Your task to perform on an android device: toggle javascript in the chrome app Image 0: 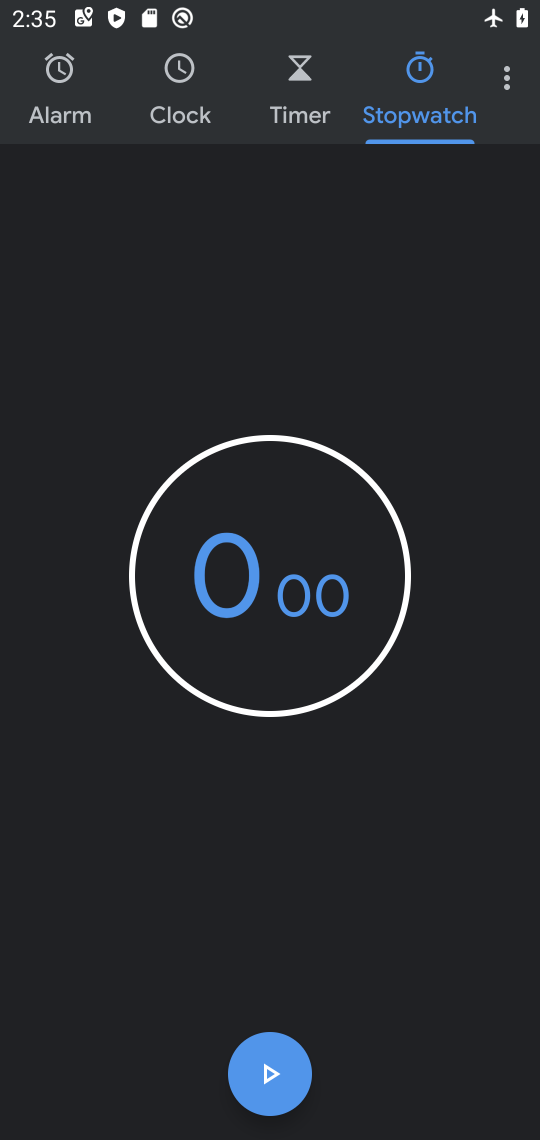
Step 0: press home button
Your task to perform on an android device: toggle javascript in the chrome app Image 1: 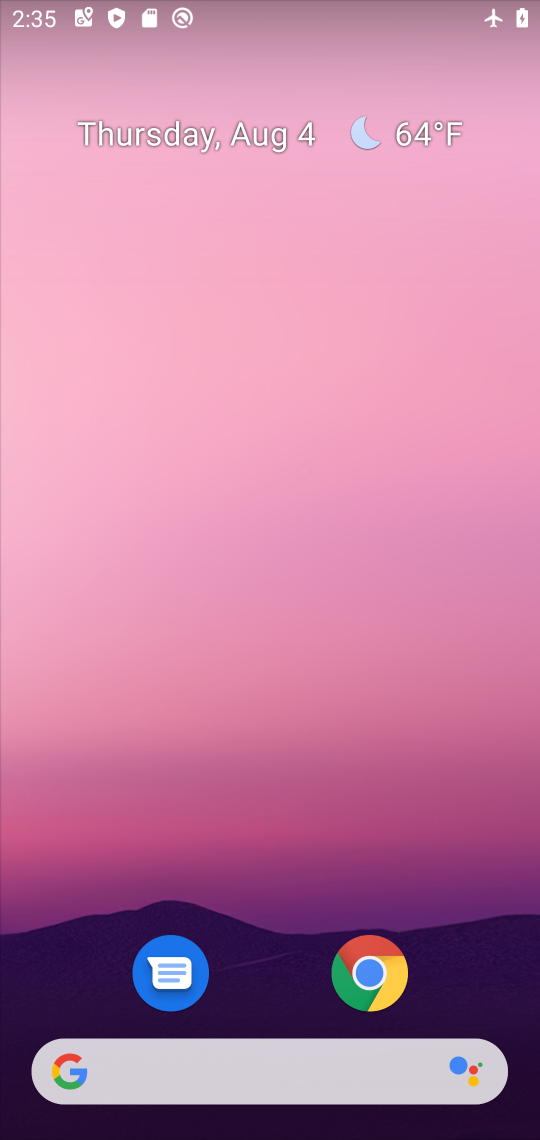
Step 1: click (382, 984)
Your task to perform on an android device: toggle javascript in the chrome app Image 2: 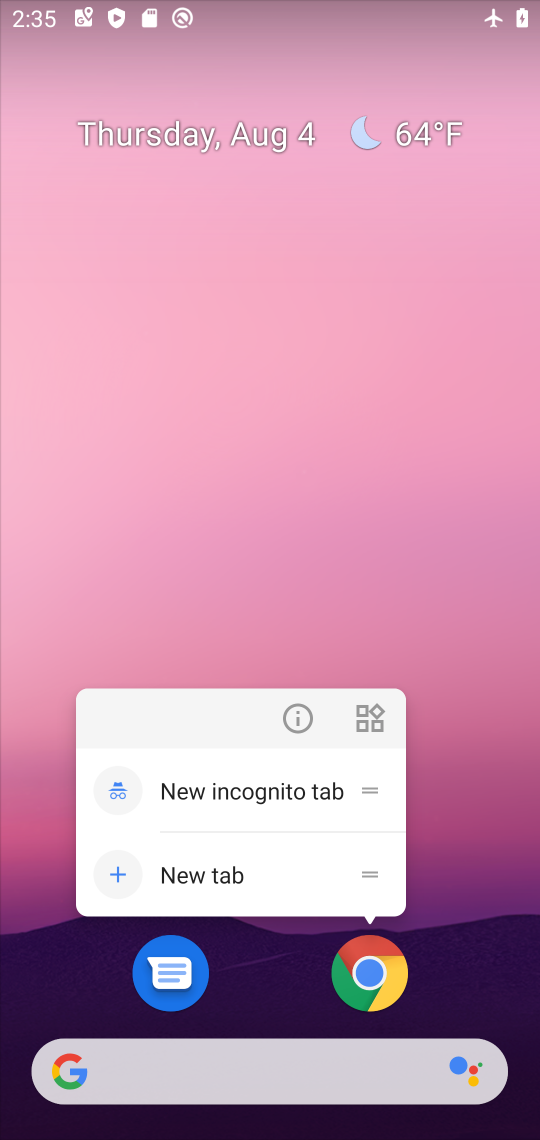
Step 2: click (360, 981)
Your task to perform on an android device: toggle javascript in the chrome app Image 3: 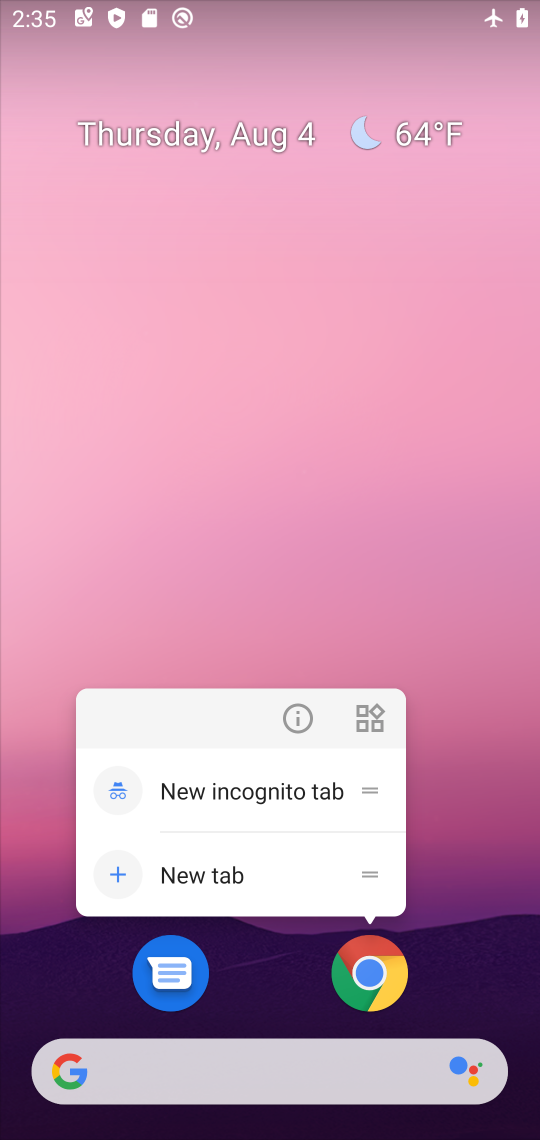
Step 3: click (360, 981)
Your task to perform on an android device: toggle javascript in the chrome app Image 4: 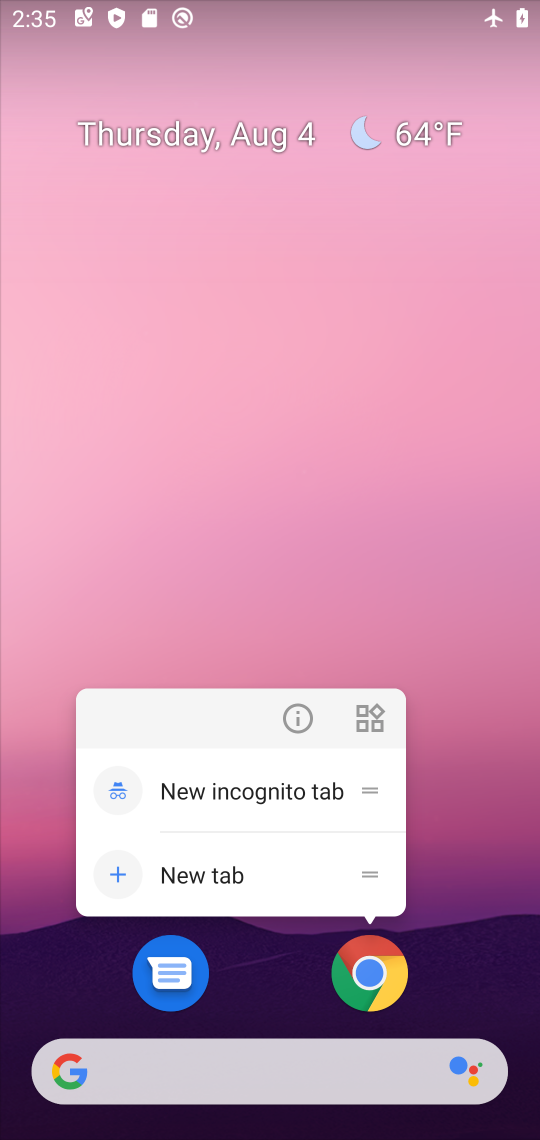
Step 4: click (371, 956)
Your task to perform on an android device: toggle javascript in the chrome app Image 5: 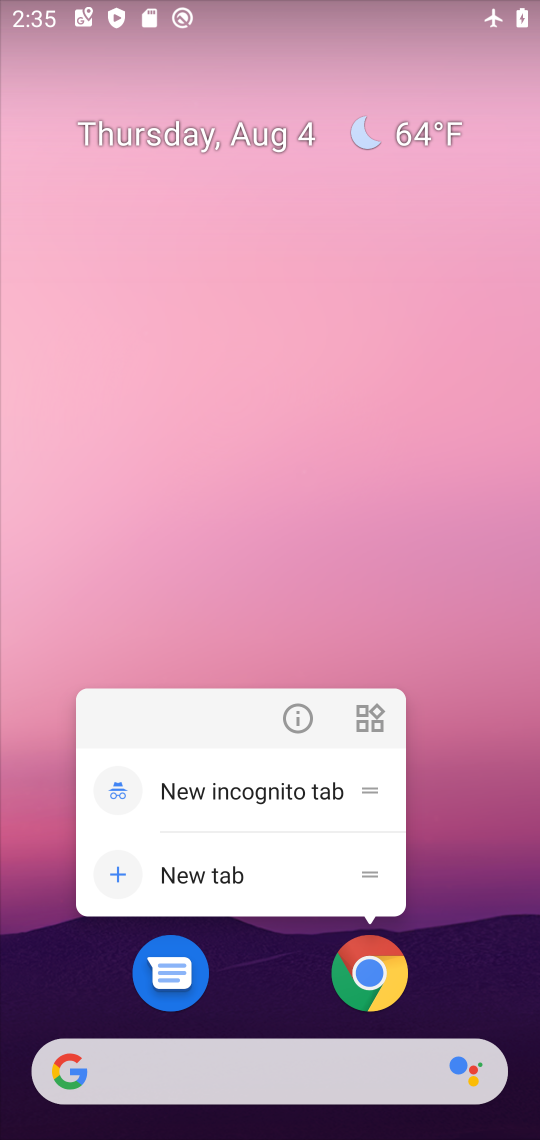
Step 5: drag from (280, 1015) to (113, 38)
Your task to perform on an android device: toggle javascript in the chrome app Image 6: 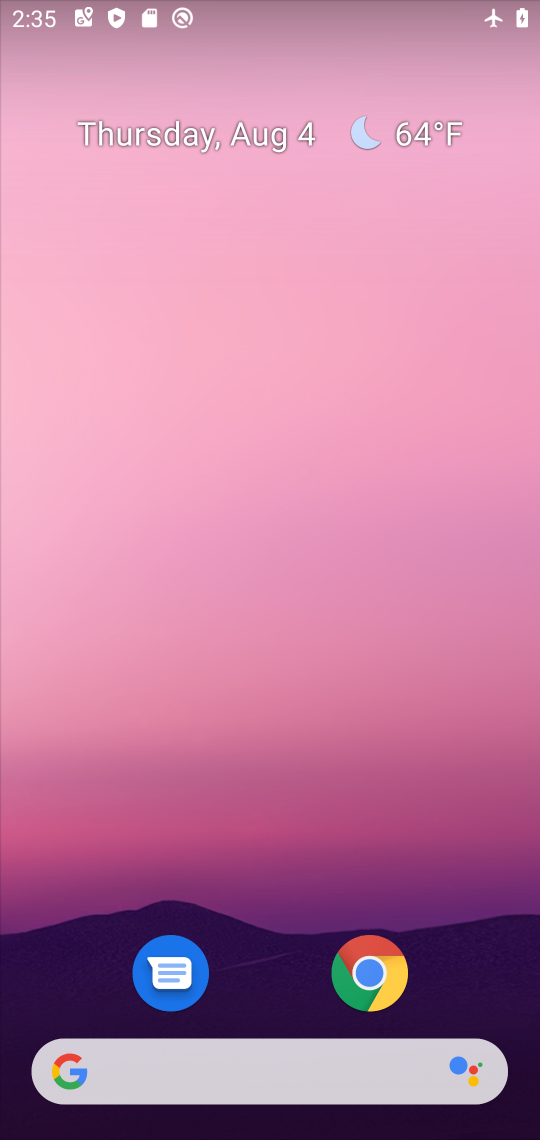
Step 6: drag from (239, 1009) to (431, 988)
Your task to perform on an android device: toggle javascript in the chrome app Image 7: 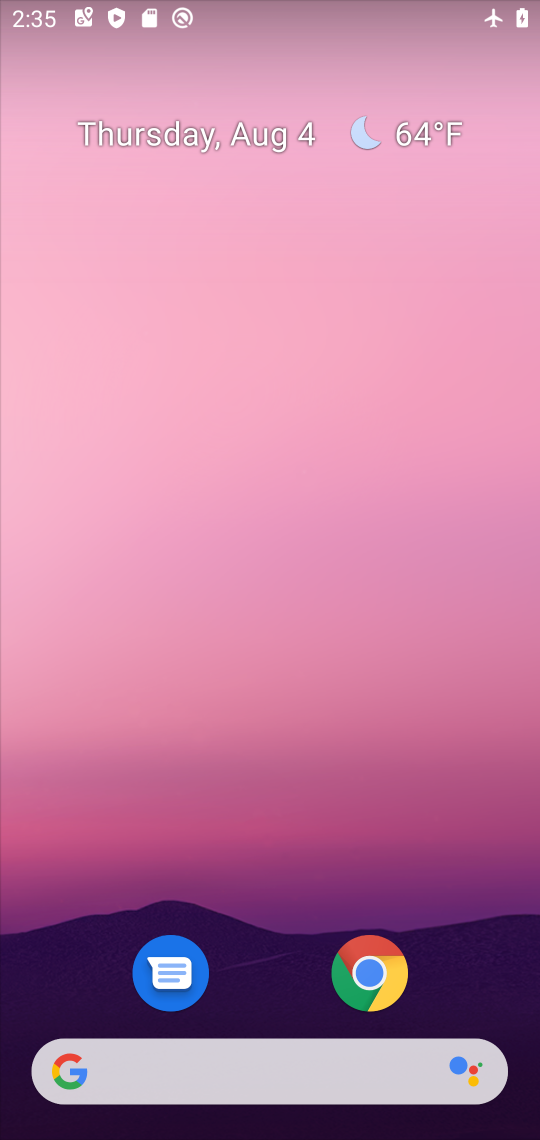
Step 7: click (378, 948)
Your task to perform on an android device: toggle javascript in the chrome app Image 8: 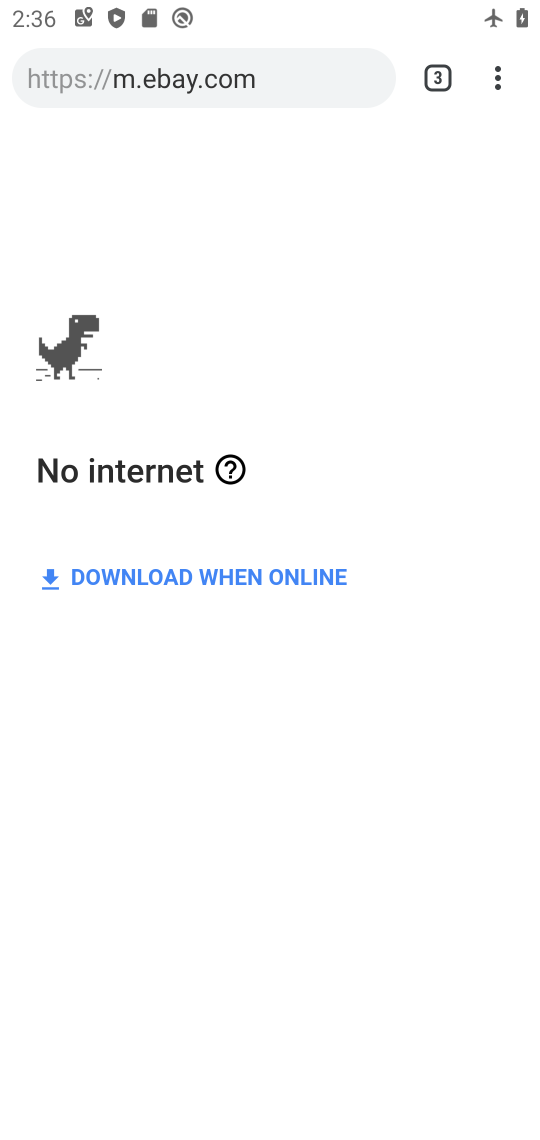
Step 8: drag from (494, 73) to (254, 863)
Your task to perform on an android device: toggle javascript in the chrome app Image 9: 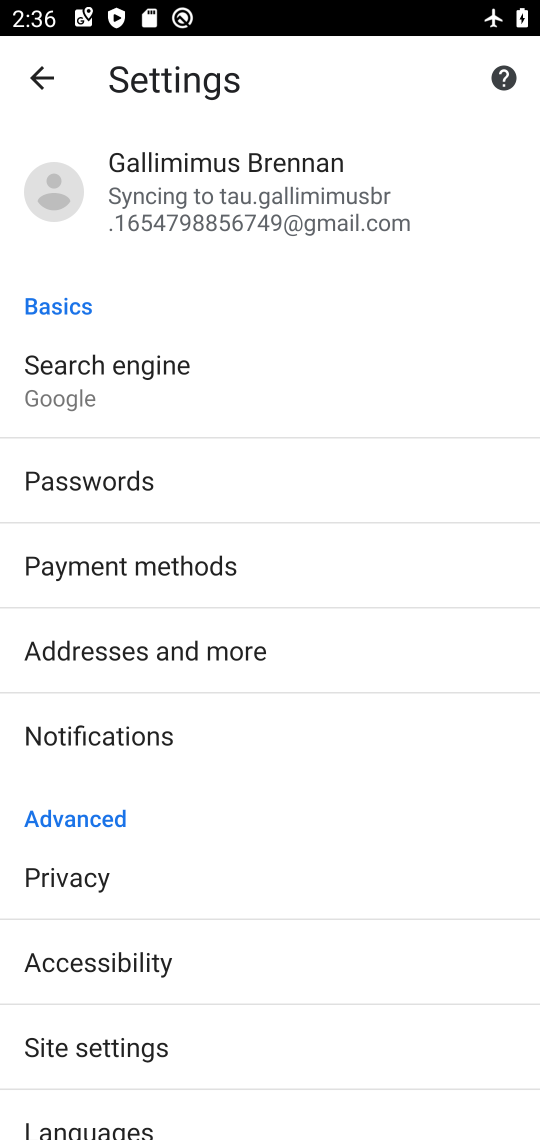
Step 9: drag from (171, 888) to (71, 51)
Your task to perform on an android device: toggle javascript in the chrome app Image 10: 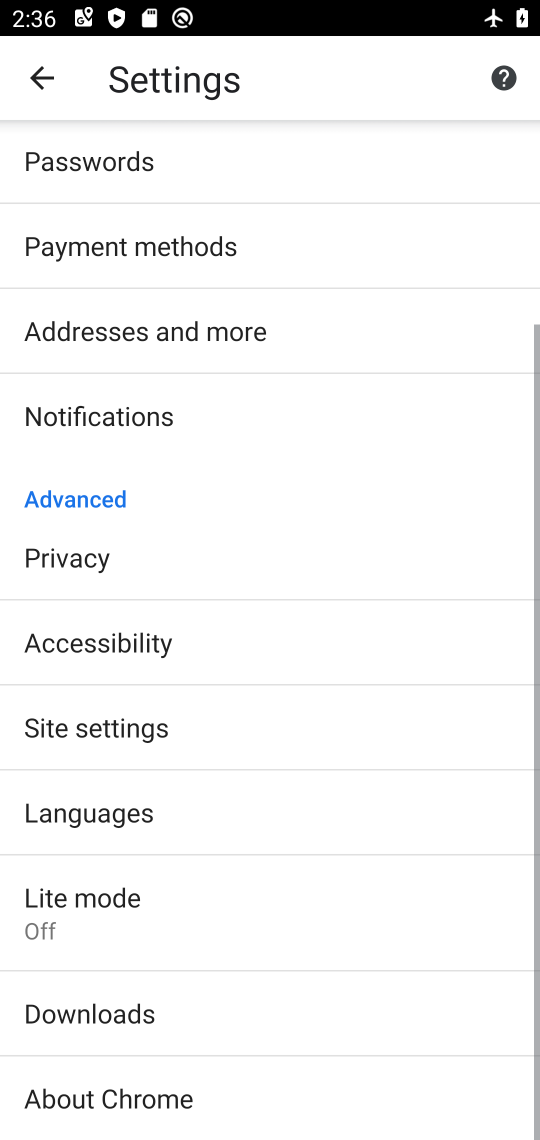
Step 10: click (64, 706)
Your task to perform on an android device: toggle javascript in the chrome app Image 11: 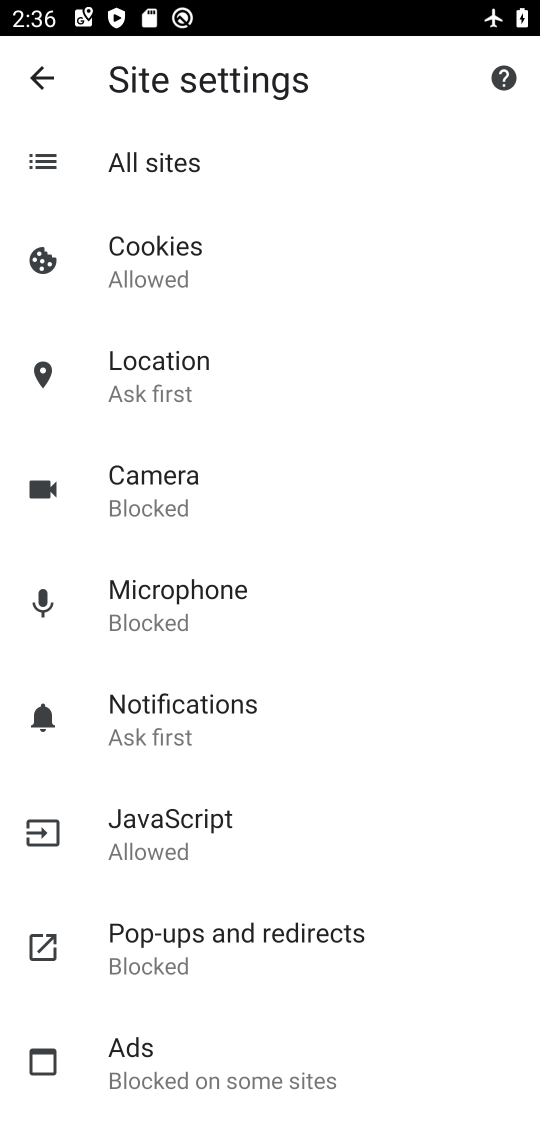
Step 11: click (201, 834)
Your task to perform on an android device: toggle javascript in the chrome app Image 12: 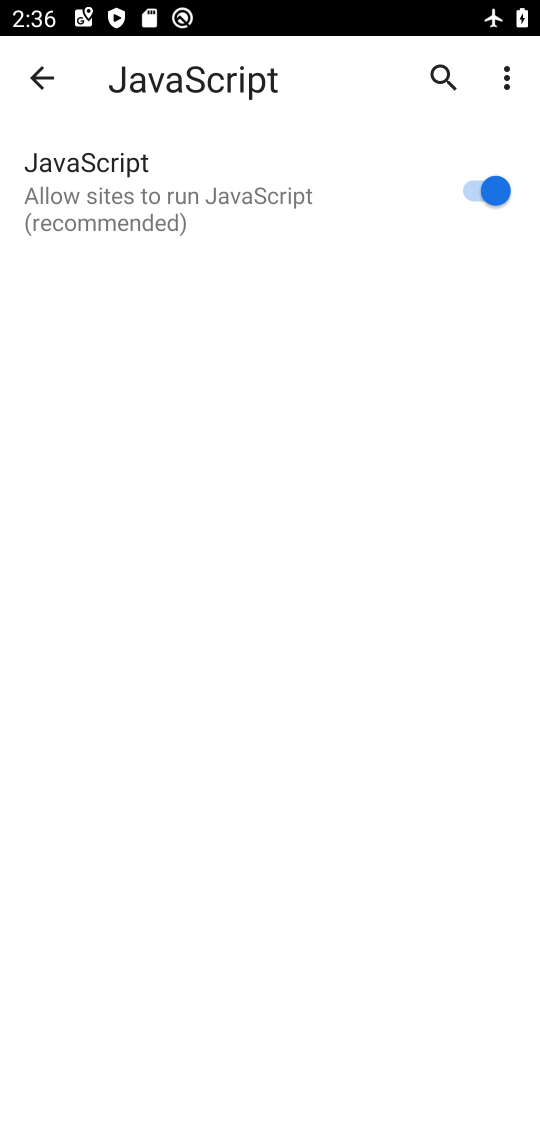
Step 12: click (451, 196)
Your task to perform on an android device: toggle javascript in the chrome app Image 13: 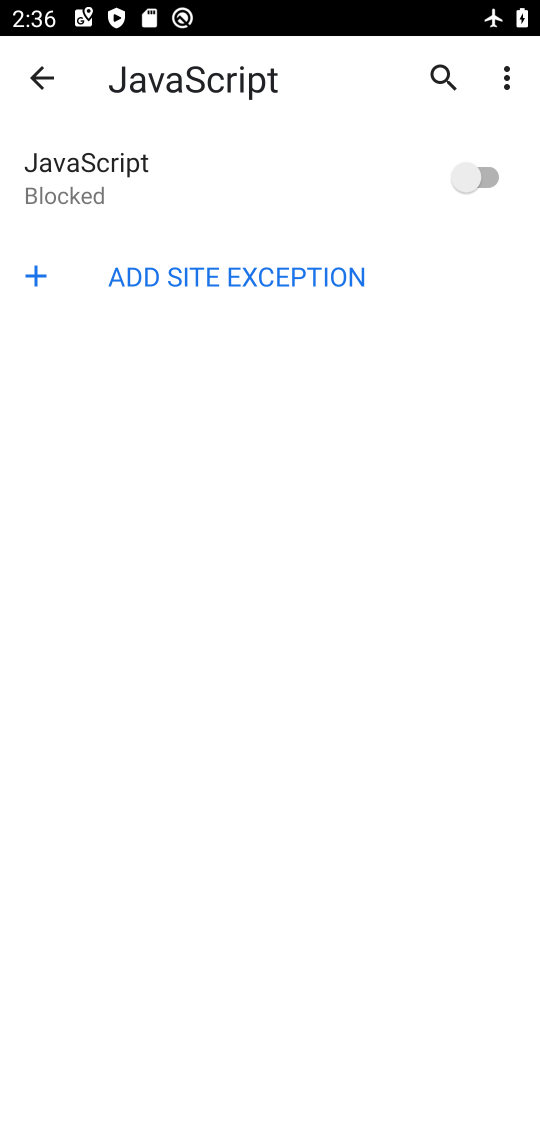
Step 13: task complete